Your task to perform on an android device: Go to ESPN.com Image 0: 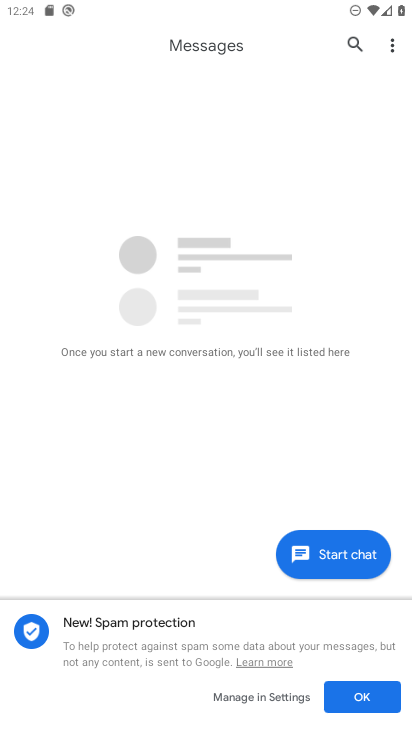
Step 0: press home button
Your task to perform on an android device: Go to ESPN.com Image 1: 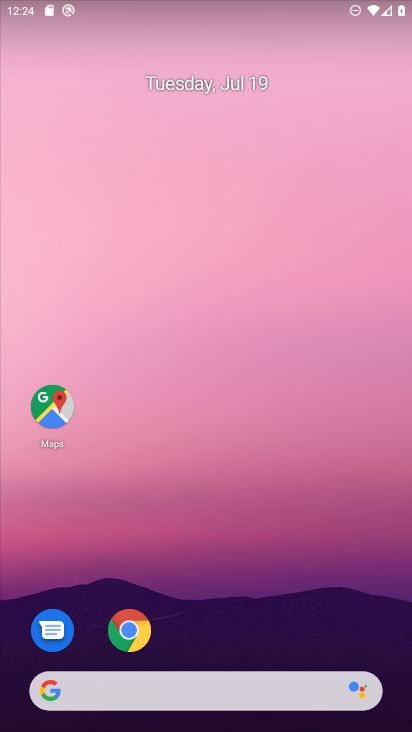
Step 1: click (135, 632)
Your task to perform on an android device: Go to ESPN.com Image 2: 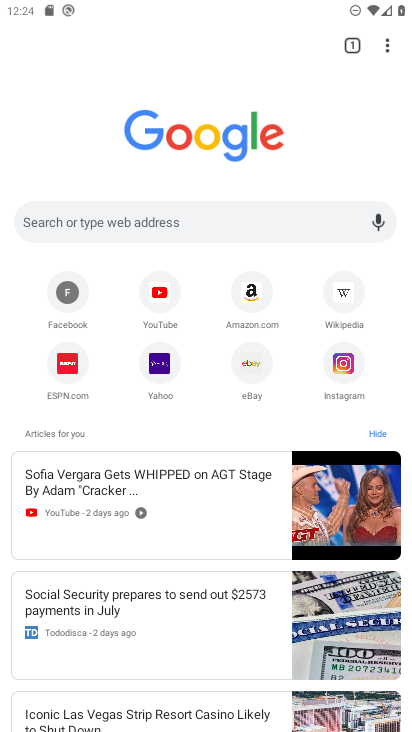
Step 2: click (66, 365)
Your task to perform on an android device: Go to ESPN.com Image 3: 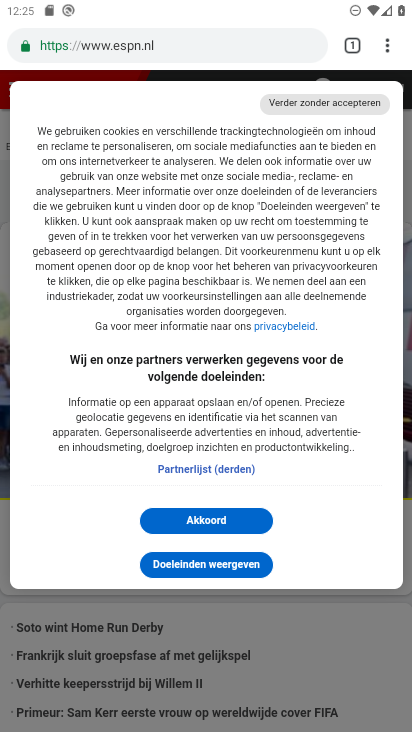
Step 3: click (201, 519)
Your task to perform on an android device: Go to ESPN.com Image 4: 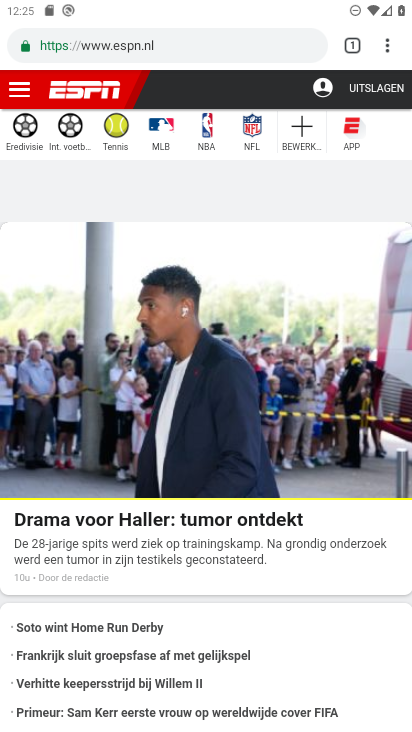
Step 4: click (205, 518)
Your task to perform on an android device: Go to ESPN.com Image 5: 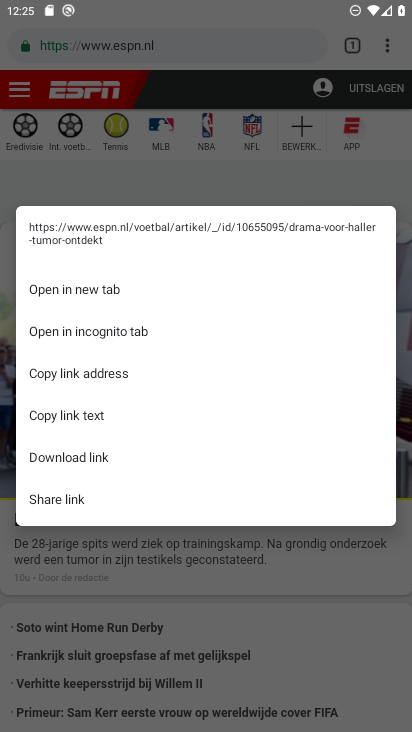
Step 5: task complete